Your task to perform on an android device: Go to Android settings Image 0: 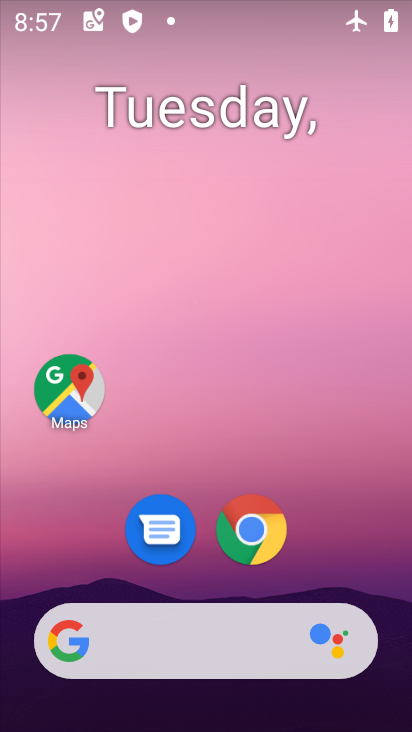
Step 0: drag from (252, 666) to (313, 149)
Your task to perform on an android device: Go to Android settings Image 1: 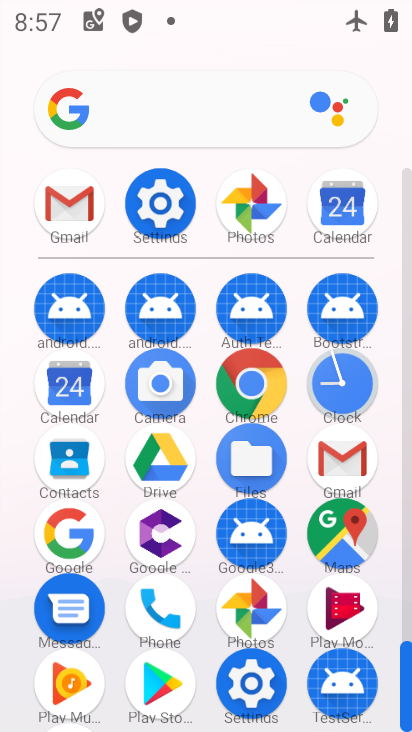
Step 1: click (173, 210)
Your task to perform on an android device: Go to Android settings Image 2: 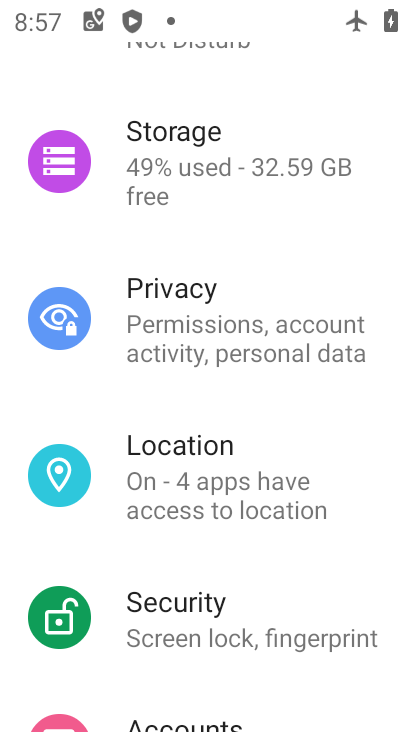
Step 2: drag from (182, 585) to (254, 73)
Your task to perform on an android device: Go to Android settings Image 3: 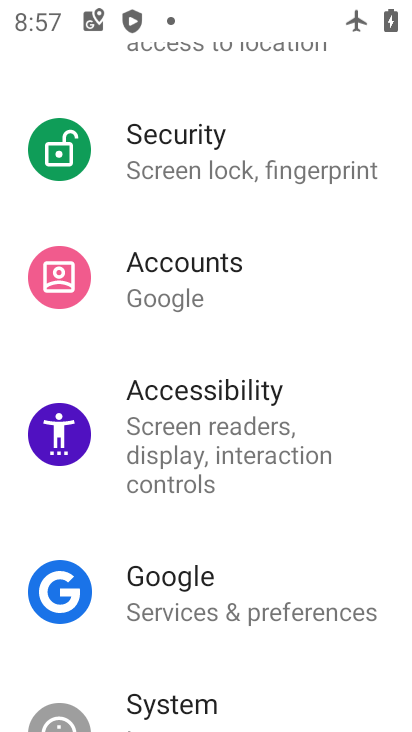
Step 3: drag from (207, 623) to (237, 81)
Your task to perform on an android device: Go to Android settings Image 4: 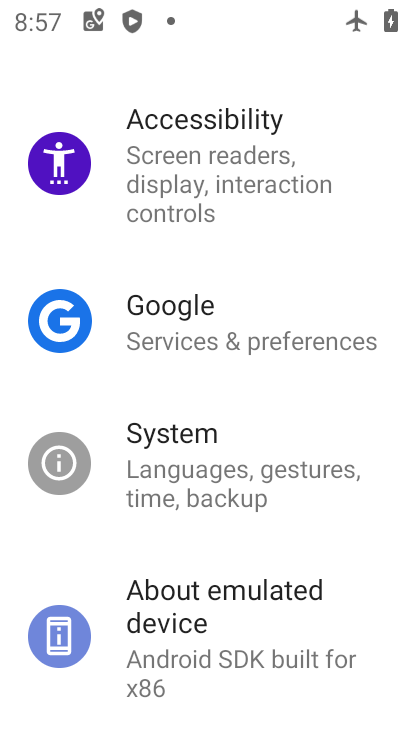
Step 4: drag from (219, 546) to (231, 24)
Your task to perform on an android device: Go to Android settings Image 5: 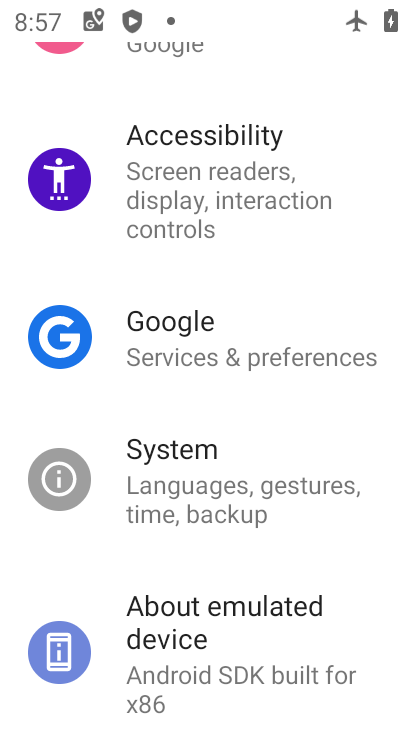
Step 5: drag from (233, 604) to (240, 197)
Your task to perform on an android device: Go to Android settings Image 6: 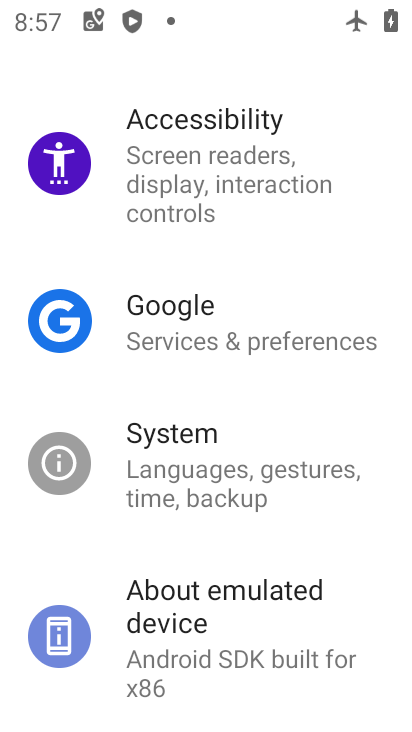
Step 6: click (196, 623)
Your task to perform on an android device: Go to Android settings Image 7: 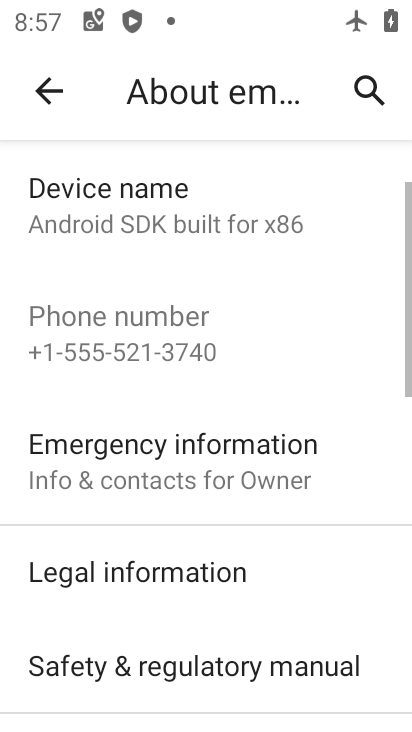
Step 7: drag from (198, 587) to (240, 143)
Your task to perform on an android device: Go to Android settings Image 8: 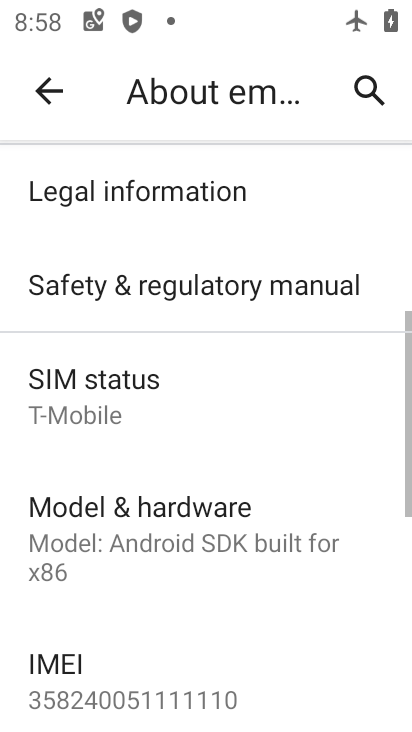
Step 8: drag from (199, 557) to (252, 246)
Your task to perform on an android device: Go to Android settings Image 9: 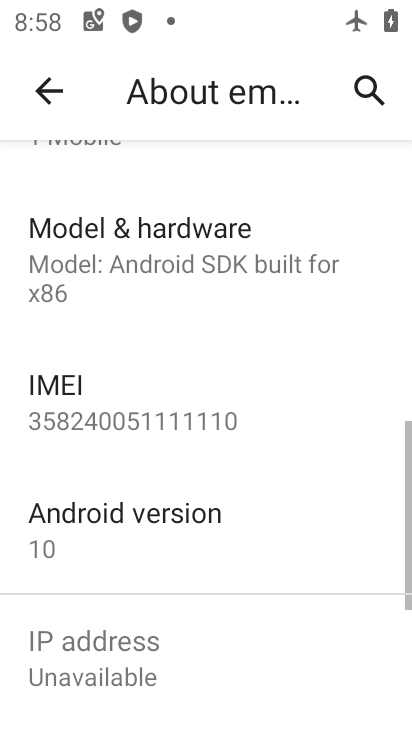
Step 9: click (186, 553)
Your task to perform on an android device: Go to Android settings Image 10: 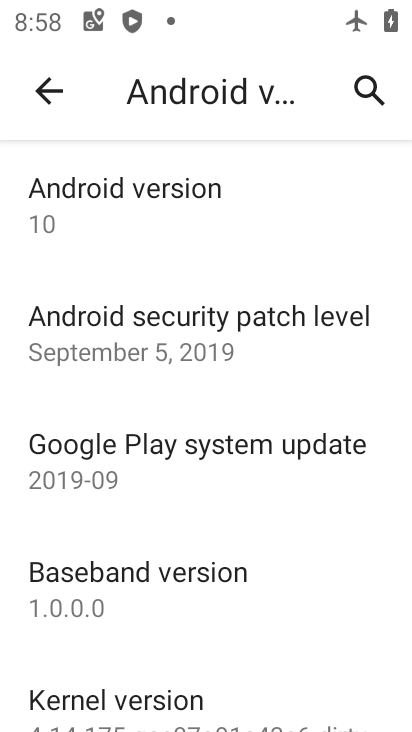
Step 10: task complete